Your task to perform on an android device: What is the recent news? Image 0: 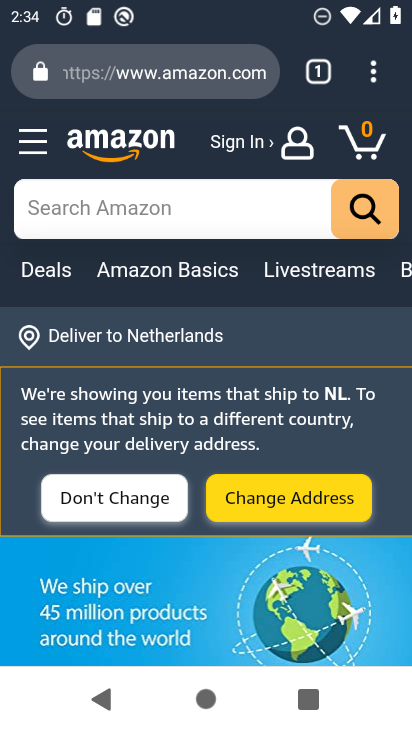
Step 0: press home button
Your task to perform on an android device: What is the recent news? Image 1: 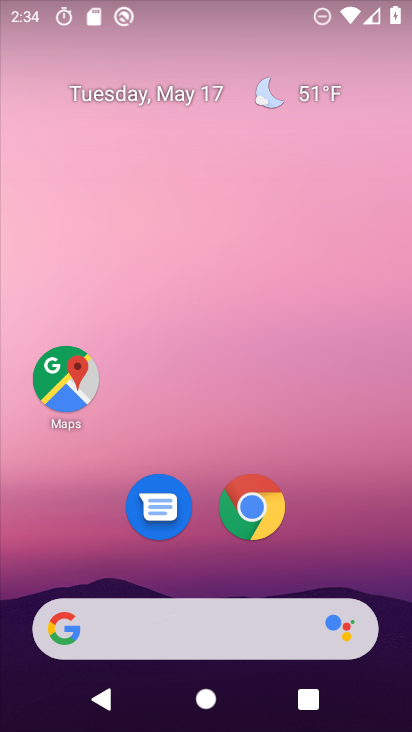
Step 1: drag from (217, 530) to (249, 130)
Your task to perform on an android device: What is the recent news? Image 2: 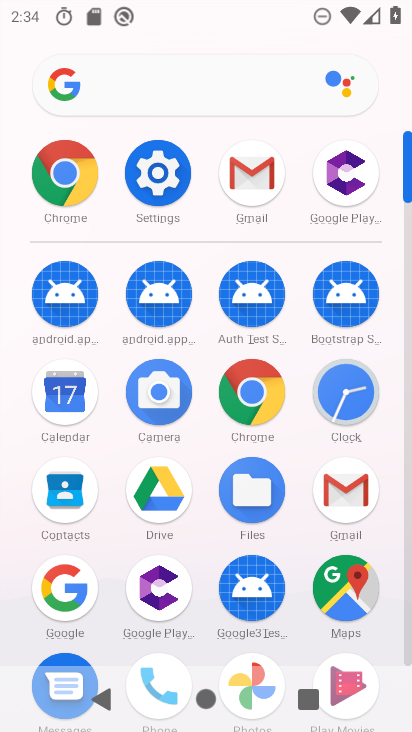
Step 2: click (66, 601)
Your task to perform on an android device: What is the recent news? Image 3: 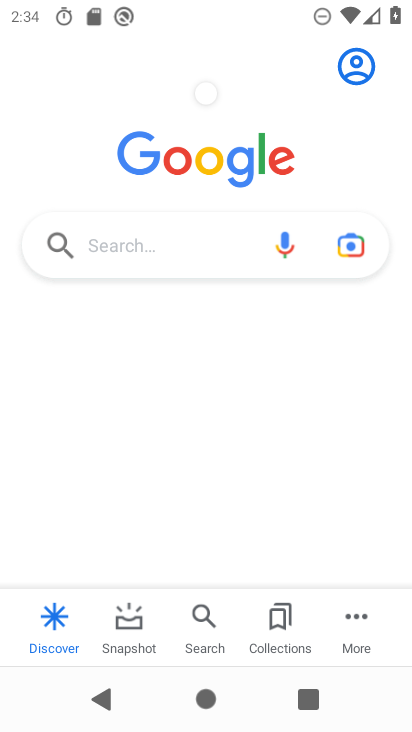
Step 3: click (177, 252)
Your task to perform on an android device: What is the recent news? Image 4: 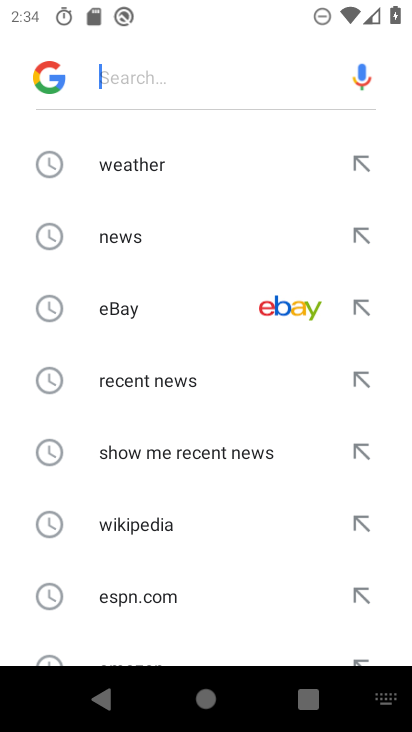
Step 4: click (137, 385)
Your task to perform on an android device: What is the recent news? Image 5: 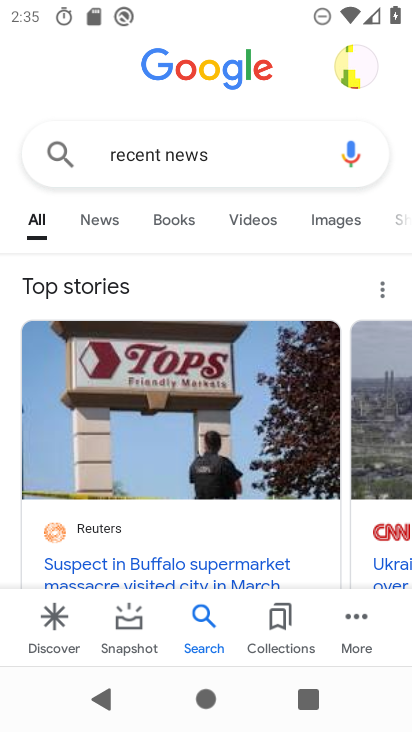
Step 5: task complete